Your task to perform on an android device: open chrome and create a bookmark for the current page Image 0: 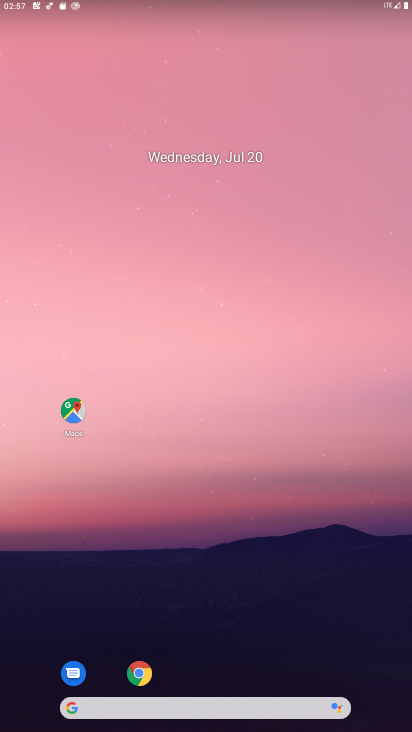
Step 0: click (138, 674)
Your task to perform on an android device: open chrome and create a bookmark for the current page Image 1: 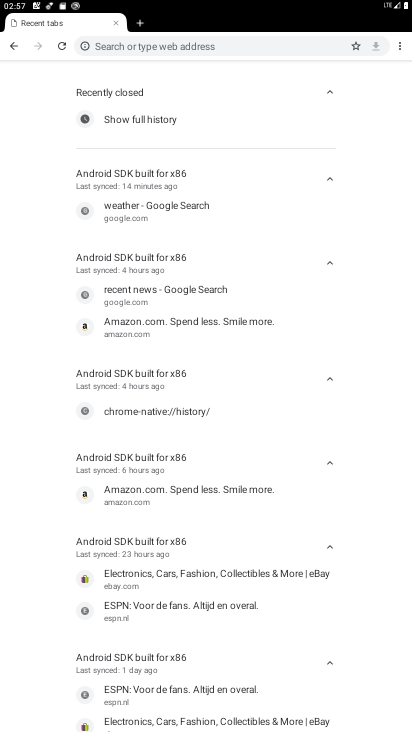
Step 1: click (351, 46)
Your task to perform on an android device: open chrome and create a bookmark for the current page Image 2: 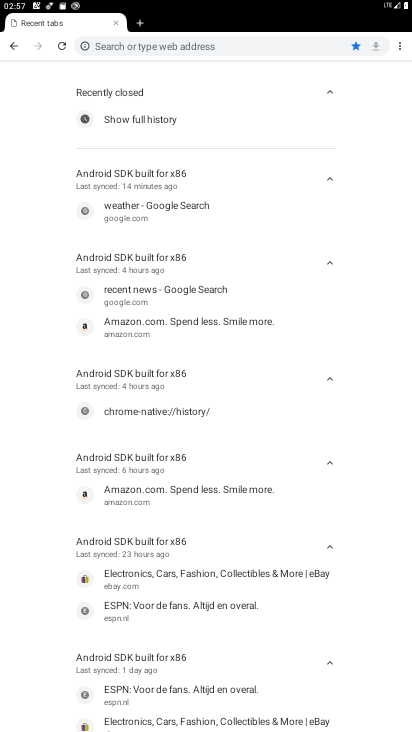
Step 2: task complete